Your task to perform on an android device: Open Chrome and go to the settings page Image 0: 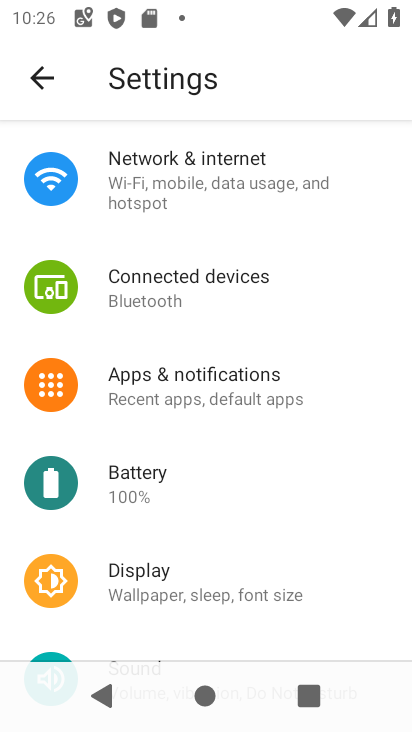
Step 0: press home button
Your task to perform on an android device: Open Chrome and go to the settings page Image 1: 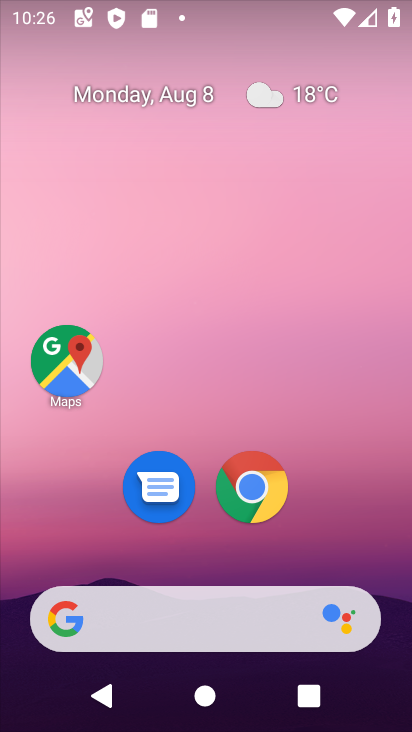
Step 1: click (255, 481)
Your task to perform on an android device: Open Chrome and go to the settings page Image 2: 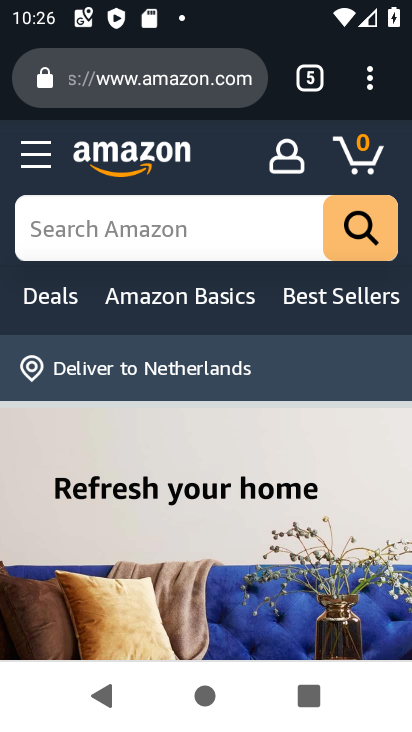
Step 2: task complete